Your task to perform on an android device: Open accessibility settings Image 0: 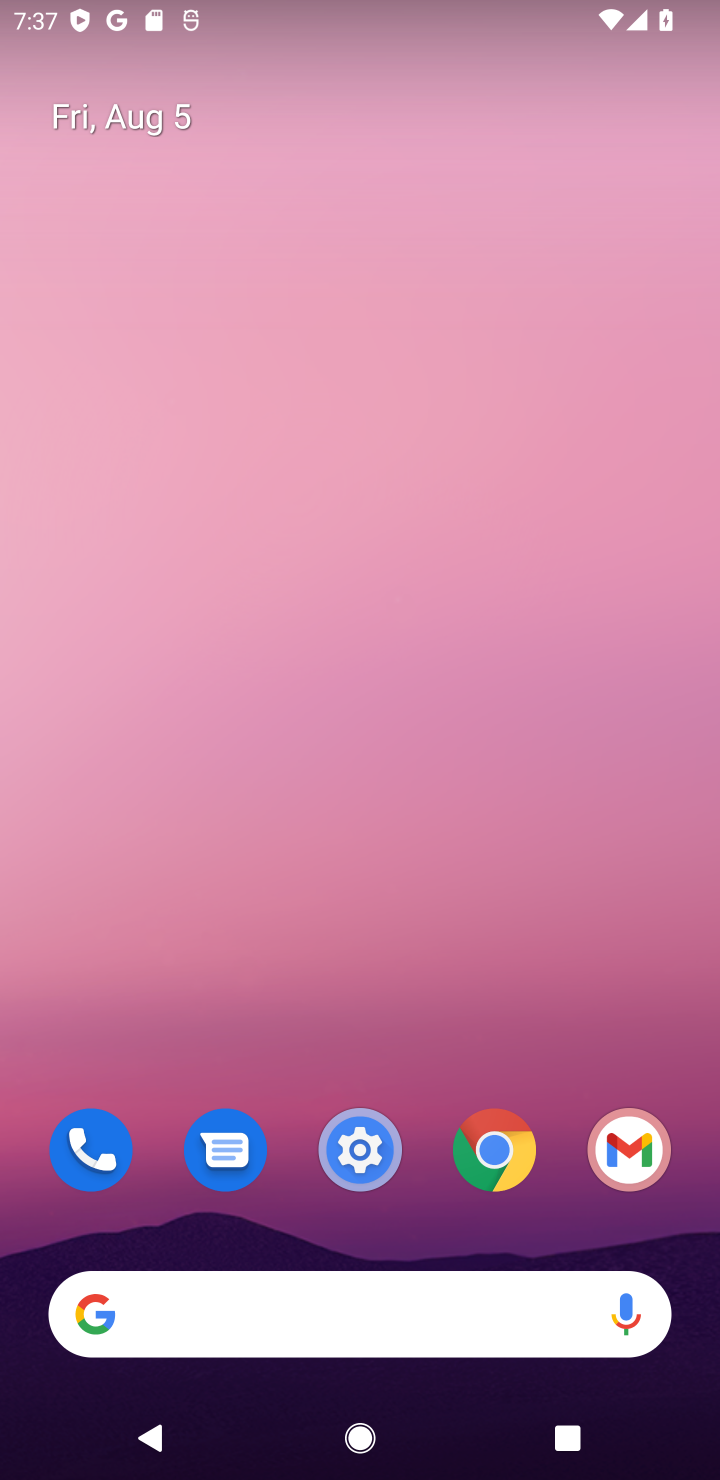
Step 0: press home button
Your task to perform on an android device: Open accessibility settings Image 1: 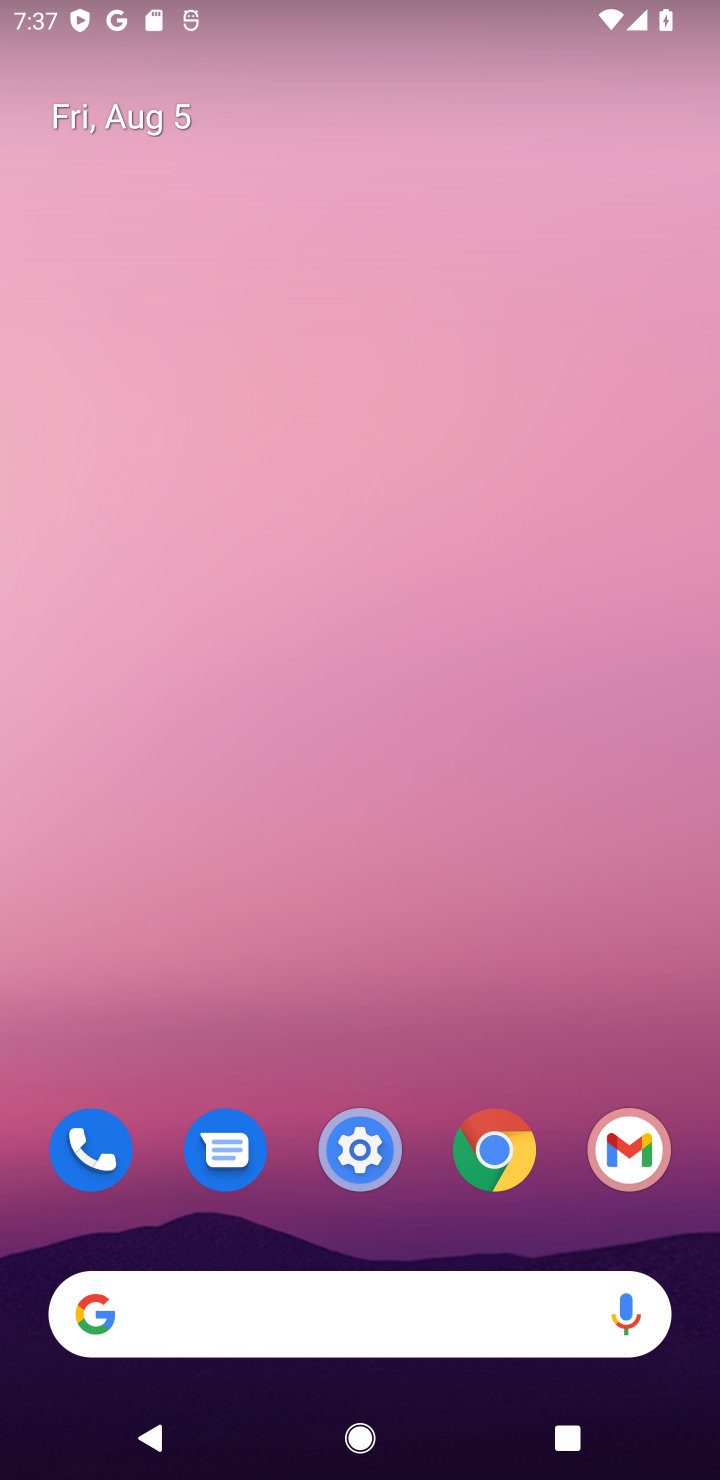
Step 1: drag from (418, 961) to (429, 325)
Your task to perform on an android device: Open accessibility settings Image 2: 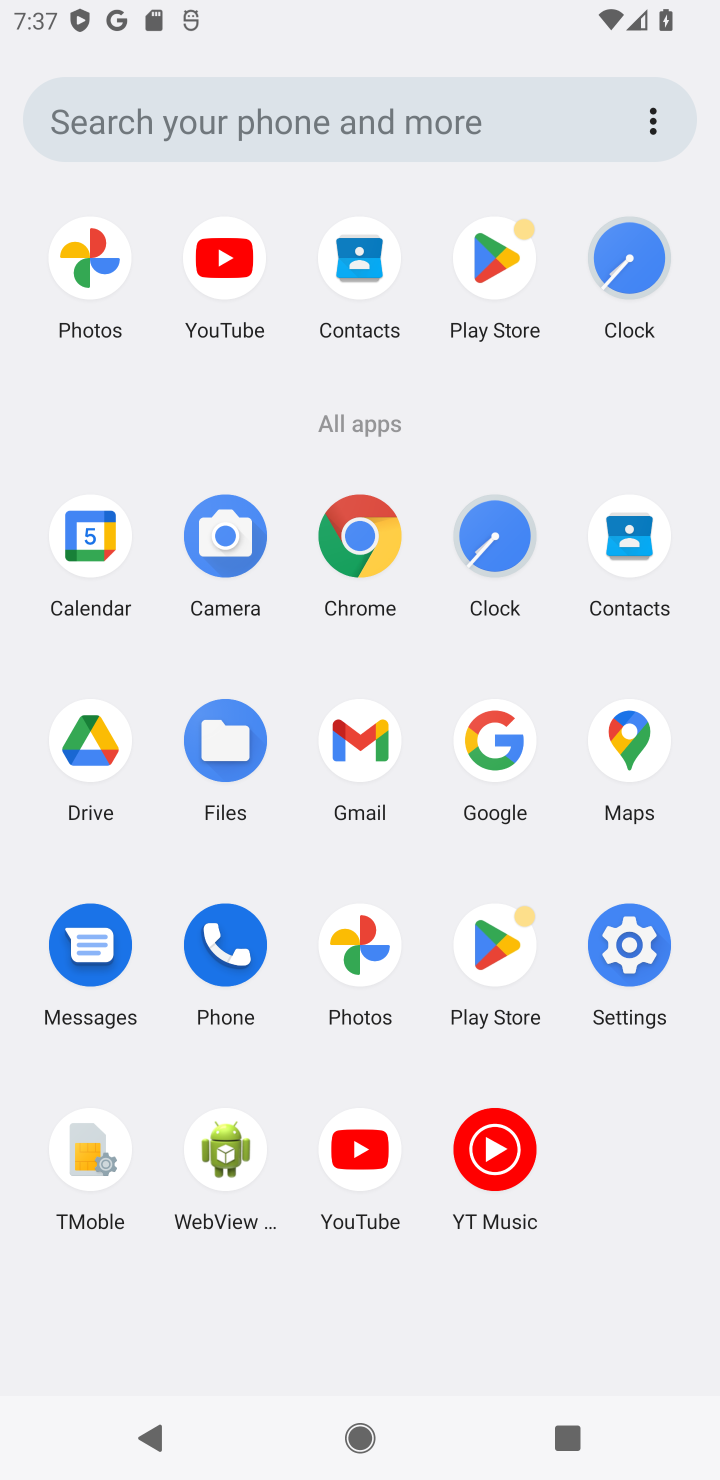
Step 2: click (622, 950)
Your task to perform on an android device: Open accessibility settings Image 3: 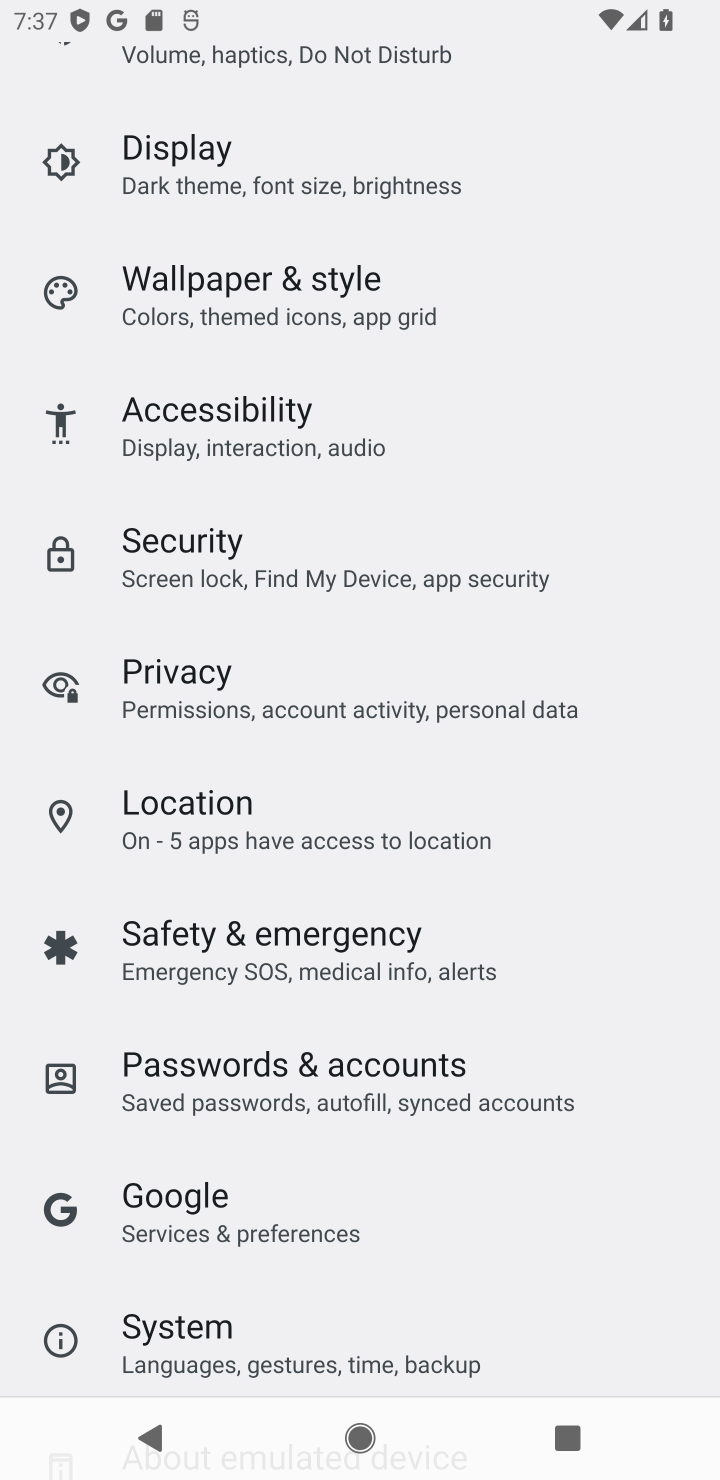
Step 3: drag from (611, 587) to (625, 829)
Your task to perform on an android device: Open accessibility settings Image 4: 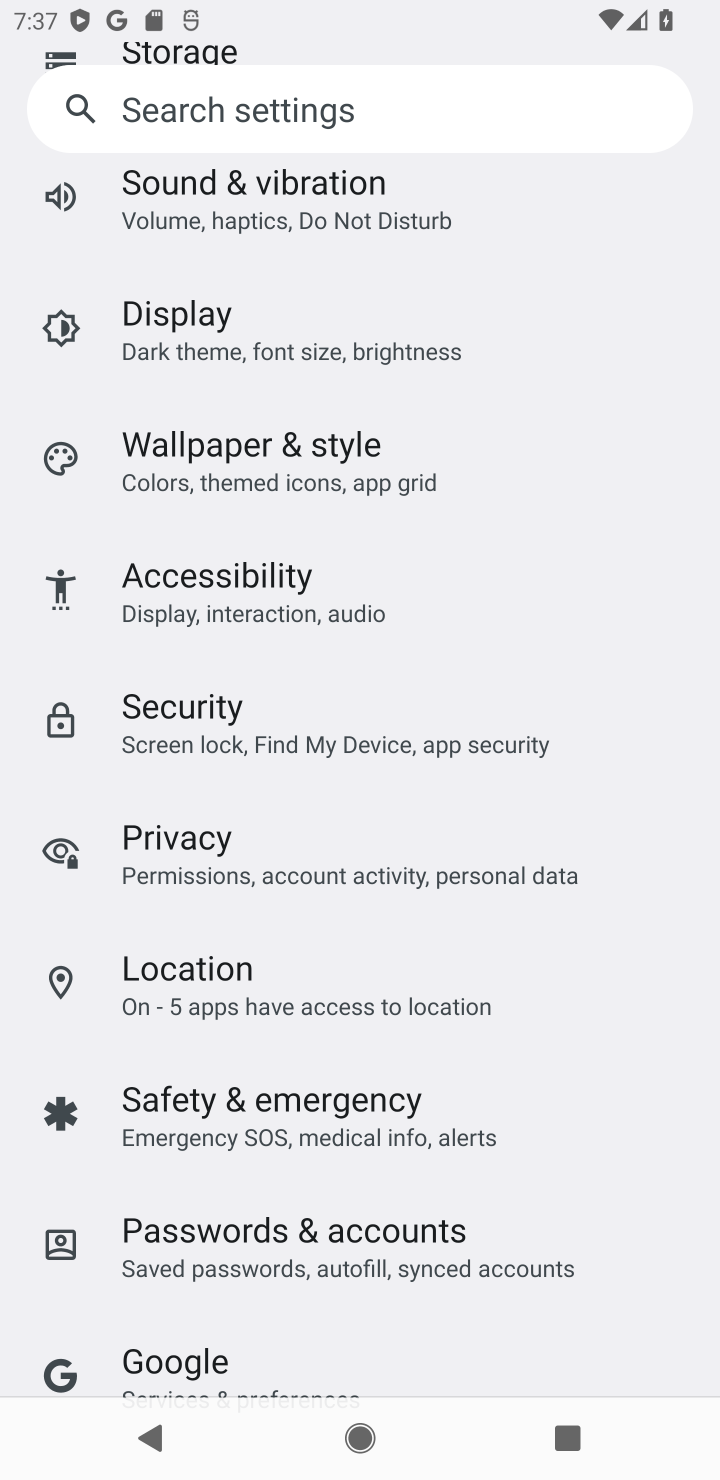
Step 4: drag from (630, 489) to (636, 724)
Your task to perform on an android device: Open accessibility settings Image 5: 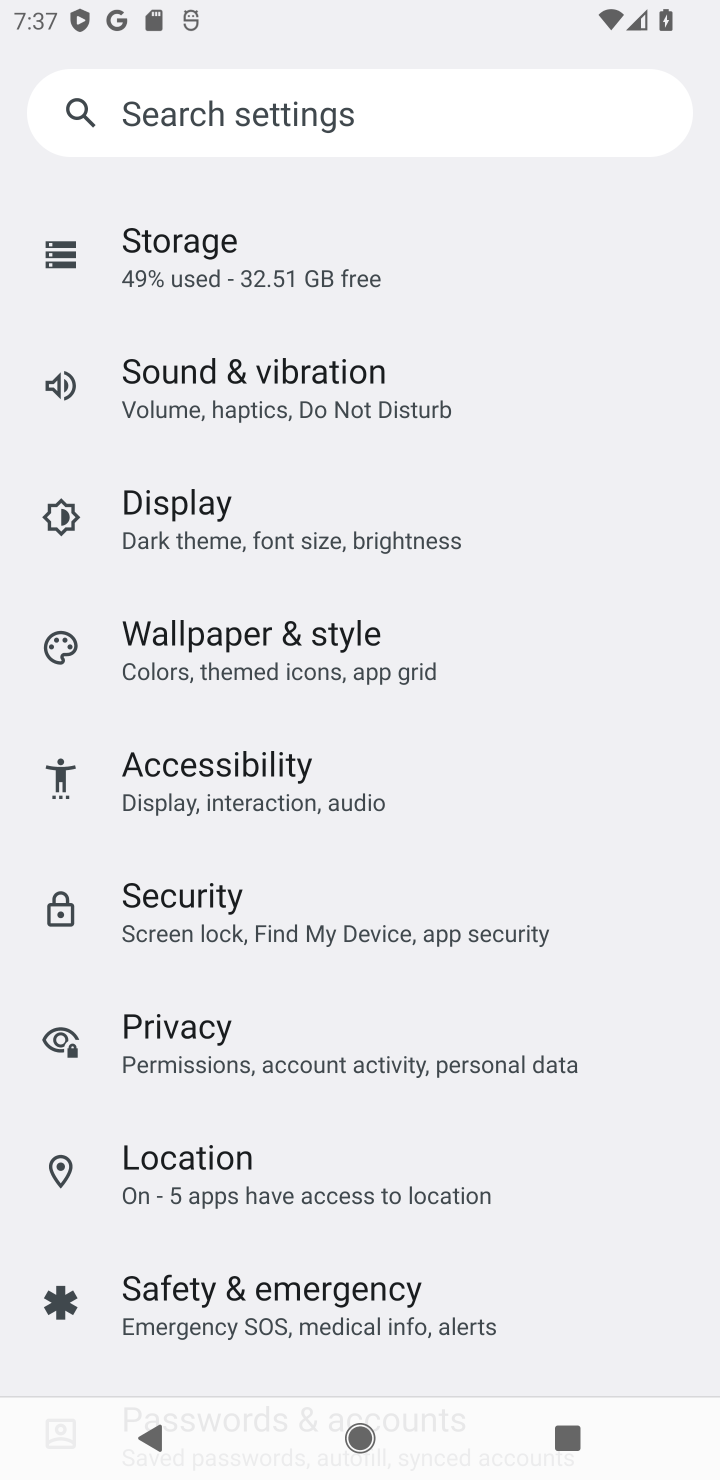
Step 5: drag from (637, 519) to (637, 810)
Your task to perform on an android device: Open accessibility settings Image 6: 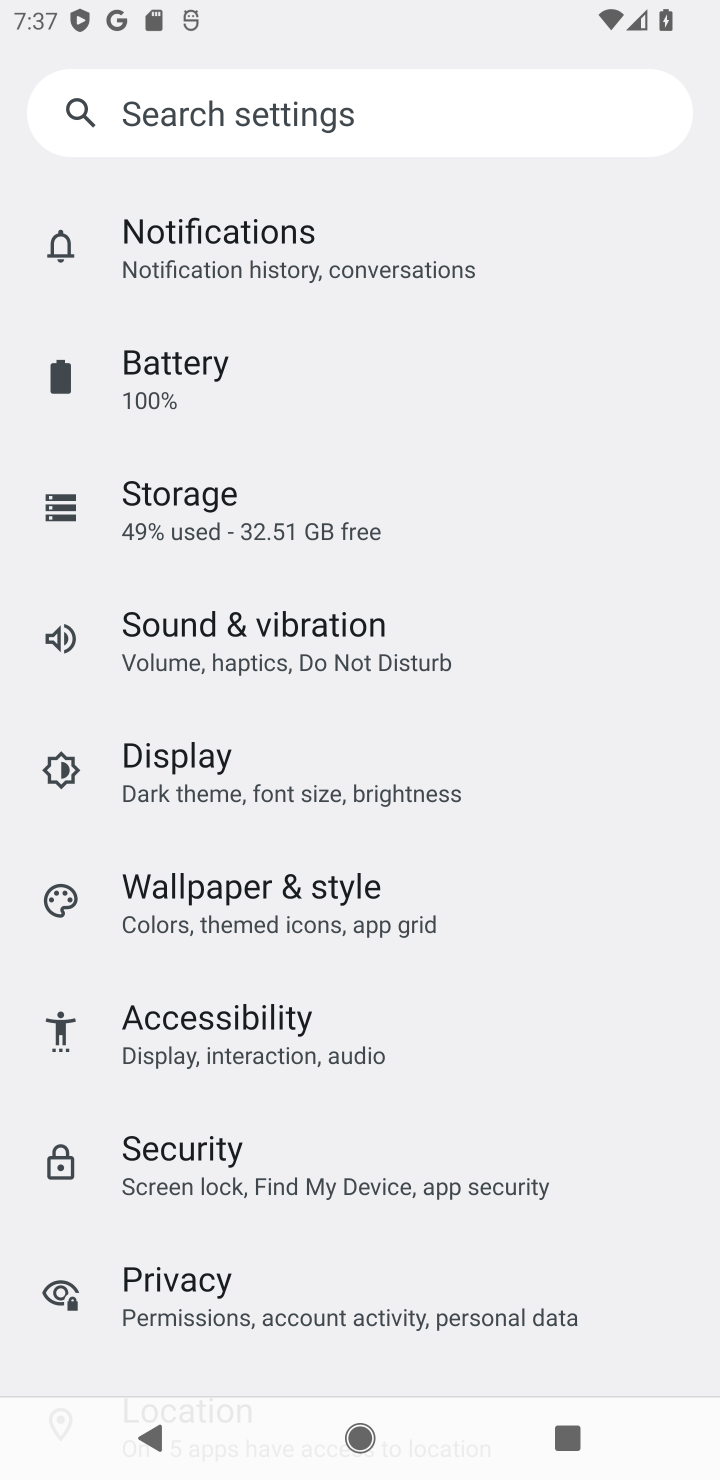
Step 6: drag from (623, 414) to (623, 778)
Your task to perform on an android device: Open accessibility settings Image 7: 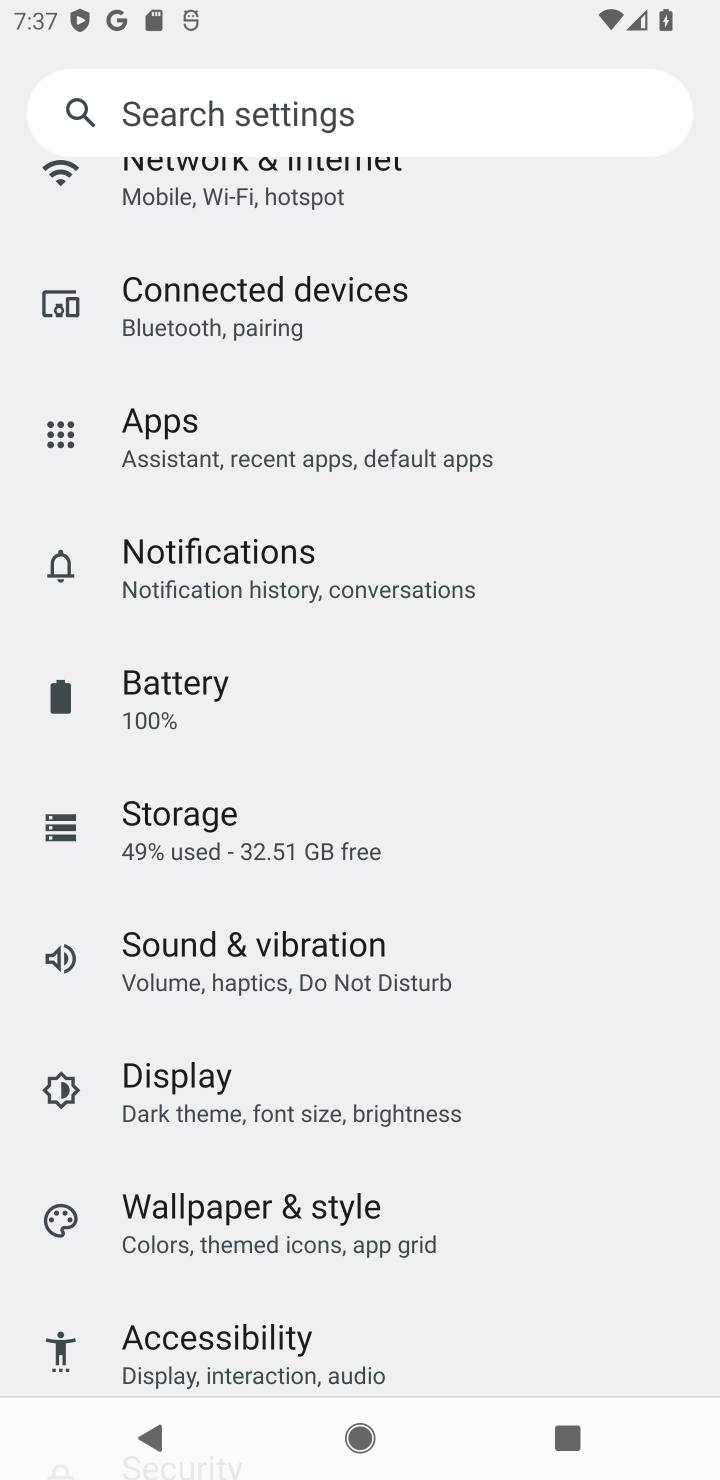
Step 7: drag from (629, 306) to (620, 704)
Your task to perform on an android device: Open accessibility settings Image 8: 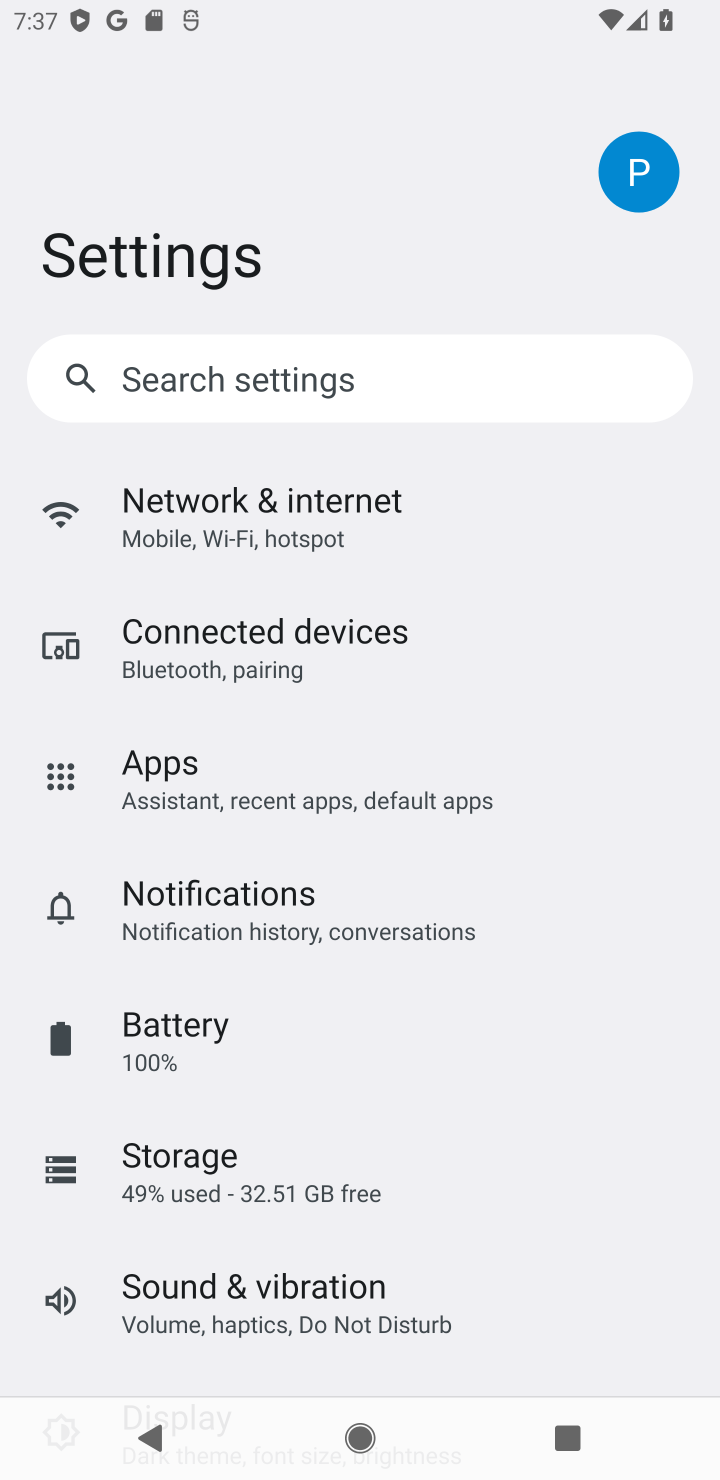
Step 8: drag from (633, 484) to (638, 789)
Your task to perform on an android device: Open accessibility settings Image 9: 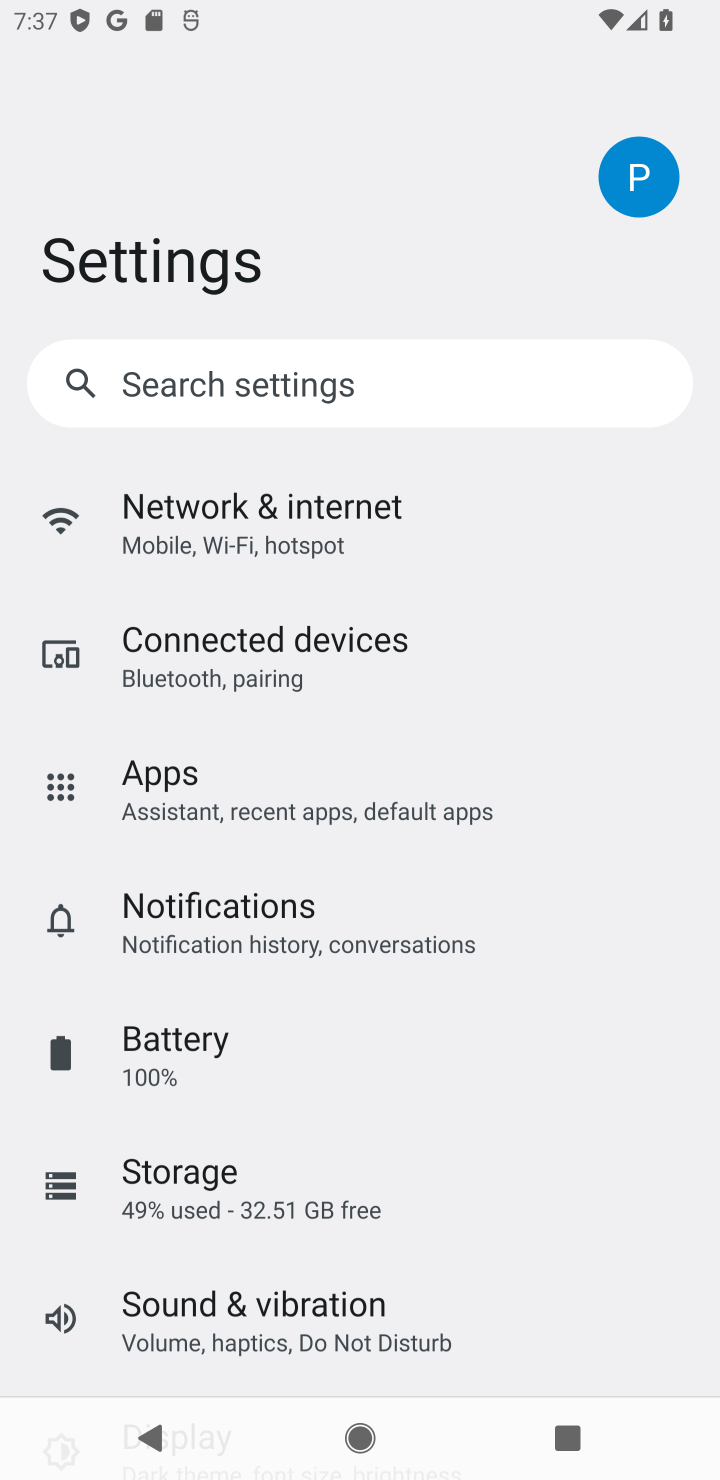
Step 9: drag from (616, 916) to (634, 581)
Your task to perform on an android device: Open accessibility settings Image 10: 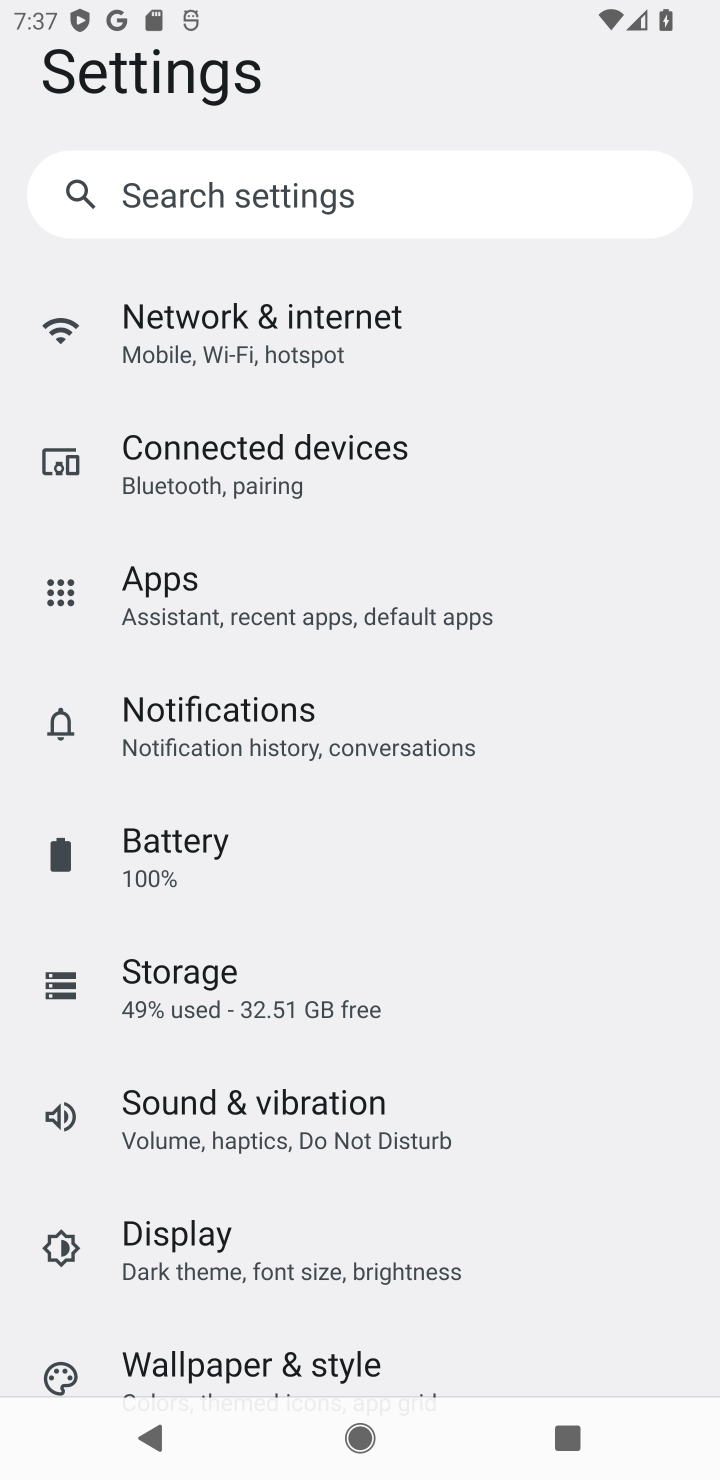
Step 10: drag from (550, 956) to (567, 625)
Your task to perform on an android device: Open accessibility settings Image 11: 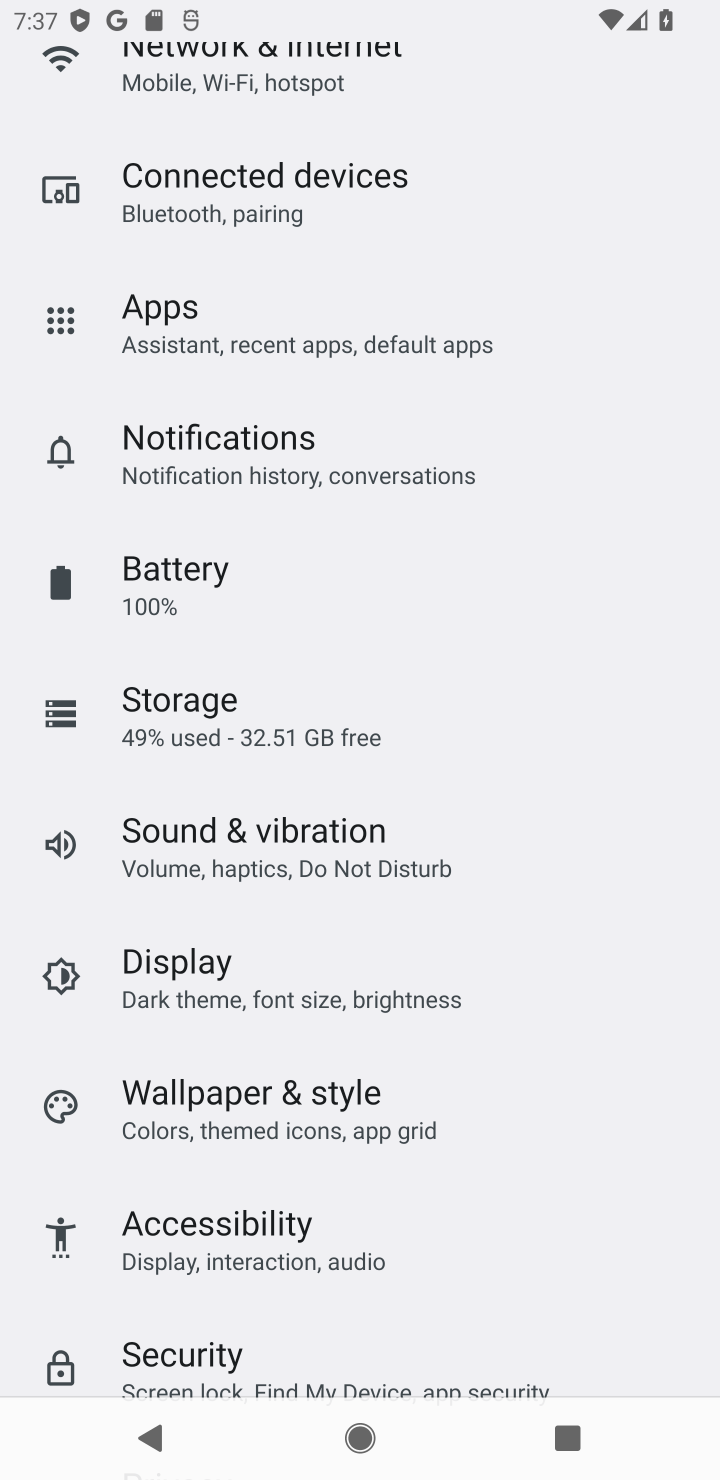
Step 11: drag from (565, 966) to (601, 627)
Your task to perform on an android device: Open accessibility settings Image 12: 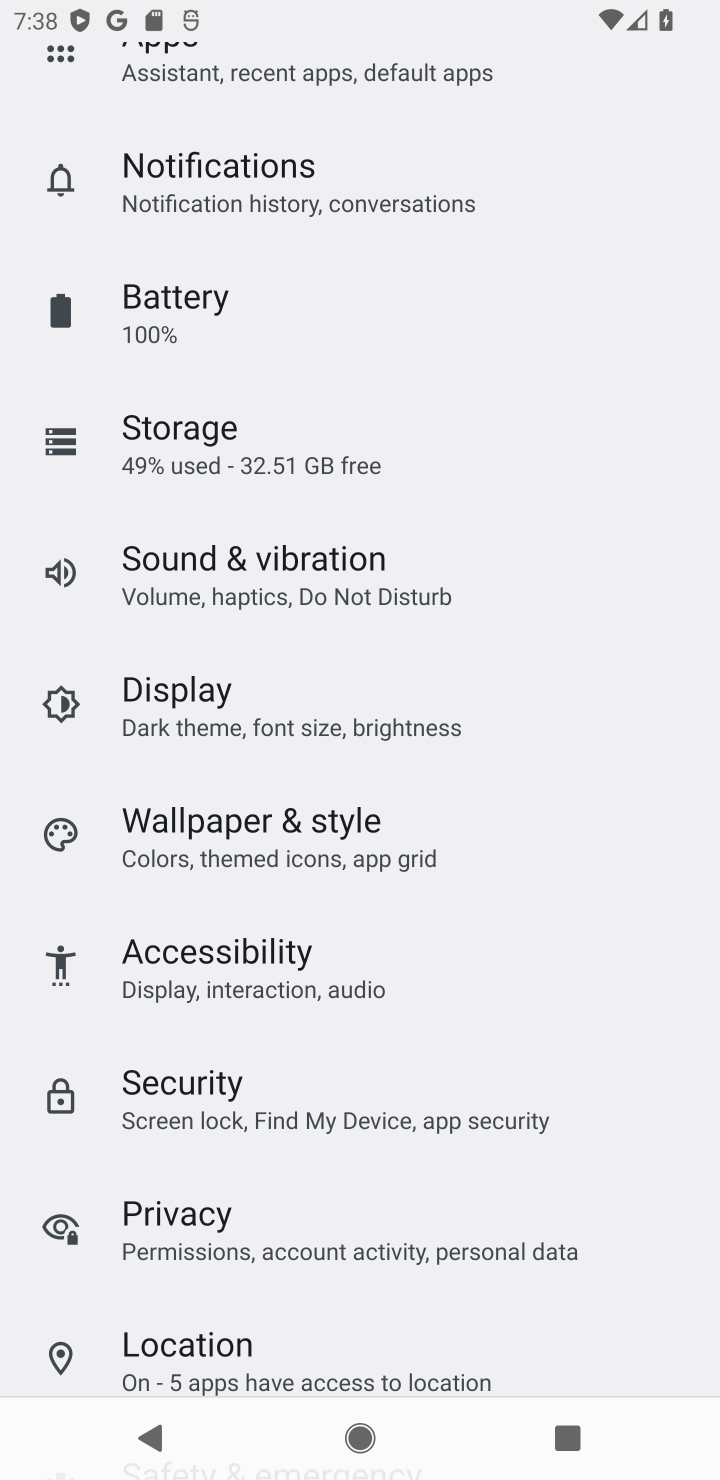
Step 12: drag from (644, 980) to (646, 630)
Your task to perform on an android device: Open accessibility settings Image 13: 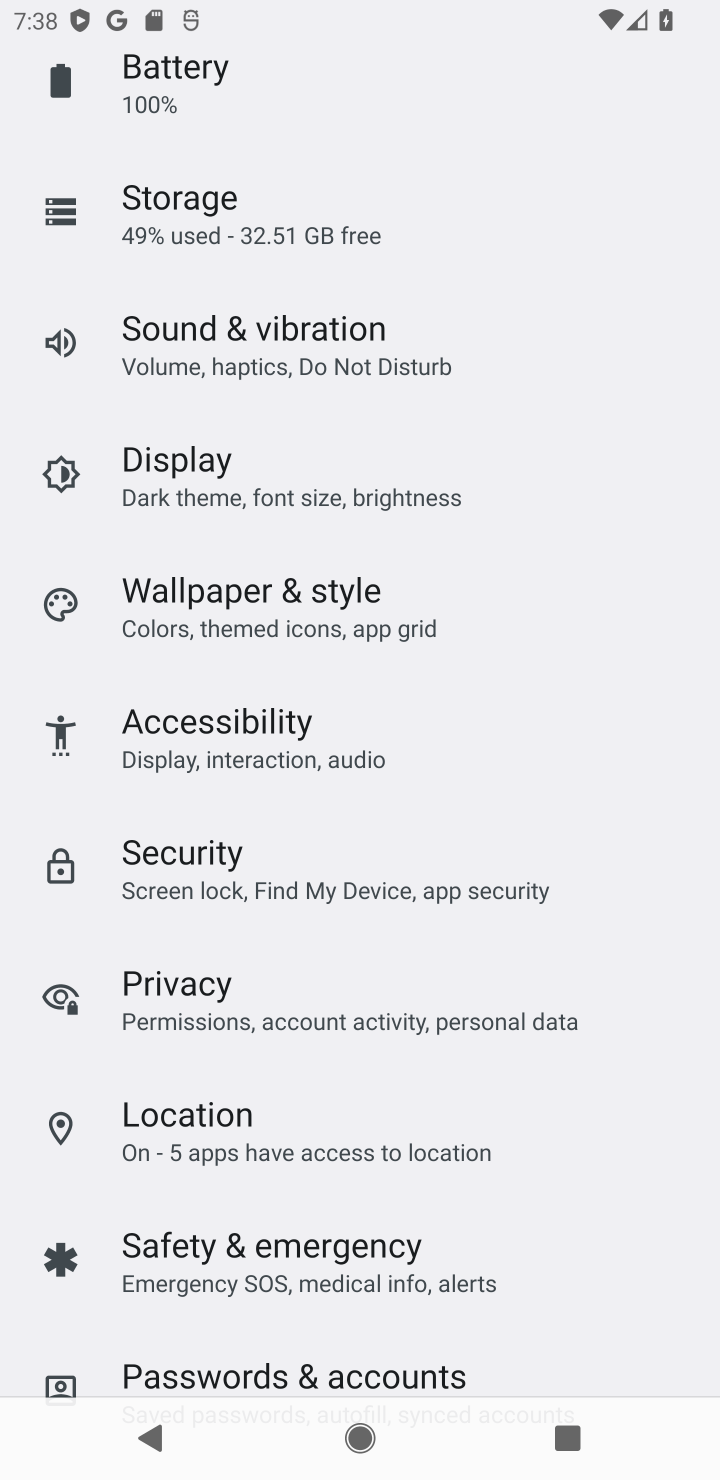
Step 13: drag from (648, 970) to (642, 653)
Your task to perform on an android device: Open accessibility settings Image 14: 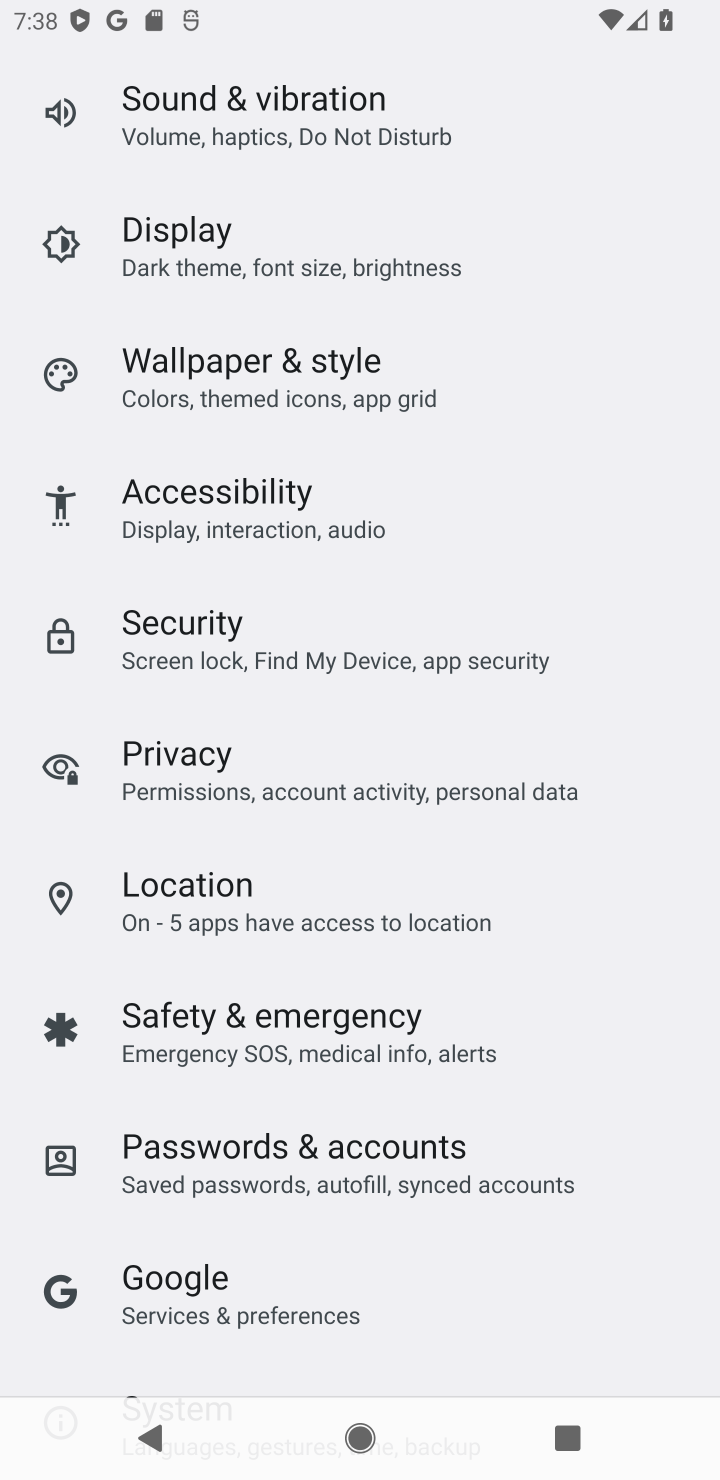
Step 14: click (350, 516)
Your task to perform on an android device: Open accessibility settings Image 15: 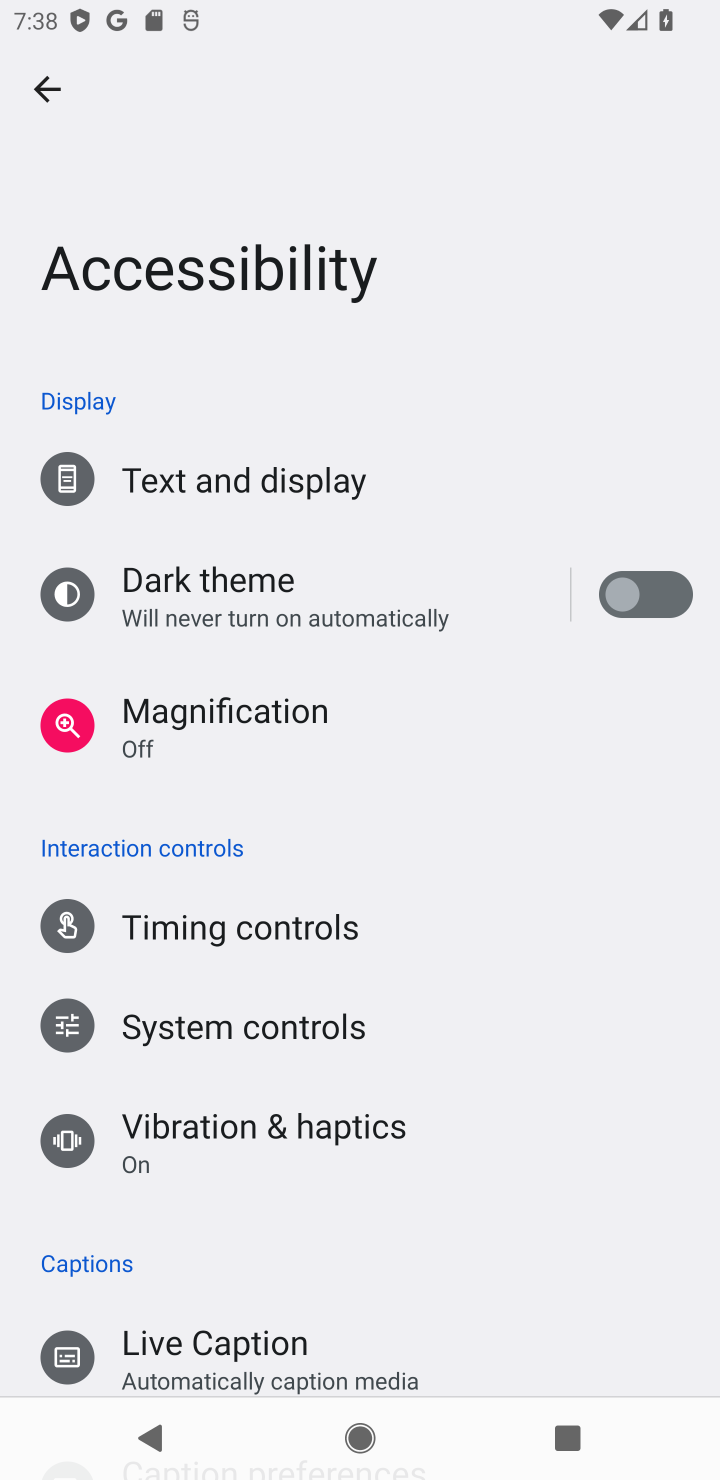
Step 15: task complete